Your task to perform on an android device: Open maps Image 0: 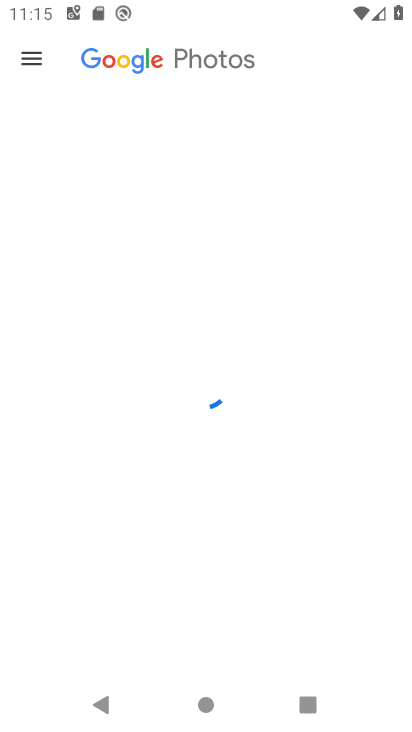
Step 0: press back button
Your task to perform on an android device: Open maps Image 1: 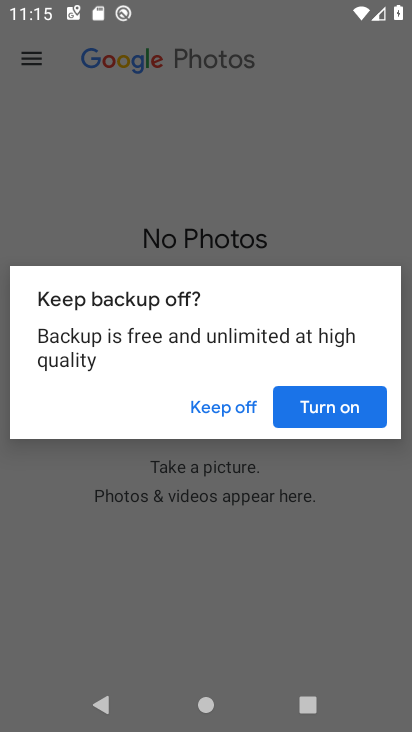
Step 1: press home button
Your task to perform on an android device: Open maps Image 2: 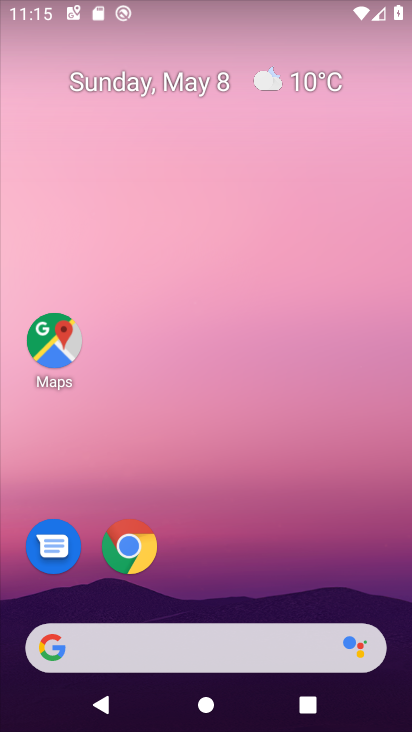
Step 2: drag from (236, 620) to (242, 242)
Your task to perform on an android device: Open maps Image 3: 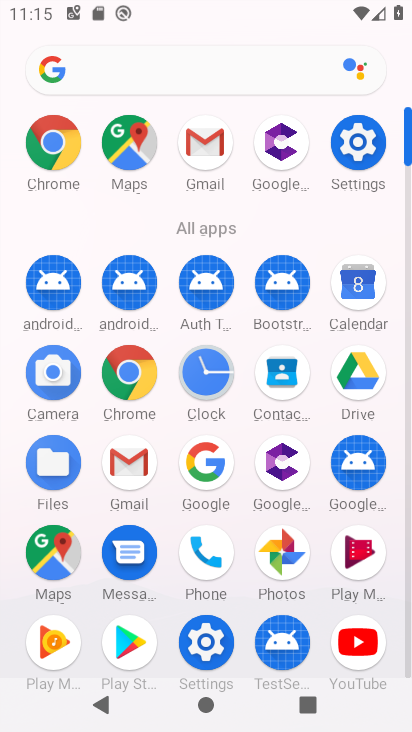
Step 3: click (69, 552)
Your task to perform on an android device: Open maps Image 4: 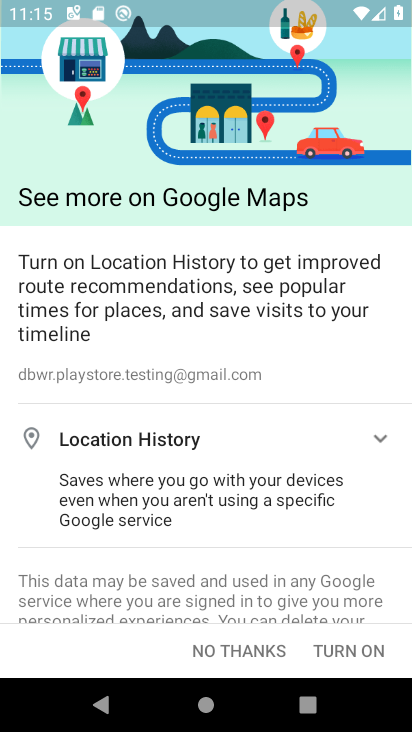
Step 4: click (288, 641)
Your task to perform on an android device: Open maps Image 5: 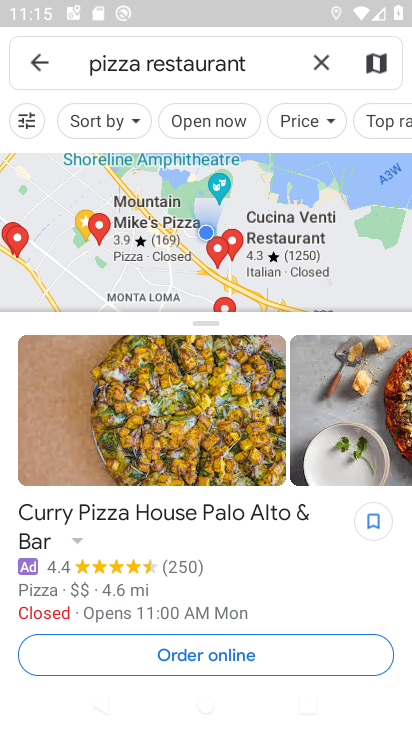
Step 5: task complete